Your task to perform on an android device: allow notifications from all sites in the chrome app Image 0: 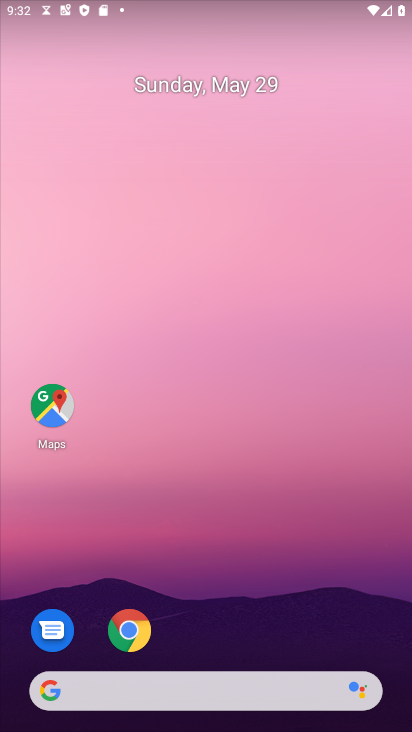
Step 0: click (140, 627)
Your task to perform on an android device: allow notifications from all sites in the chrome app Image 1: 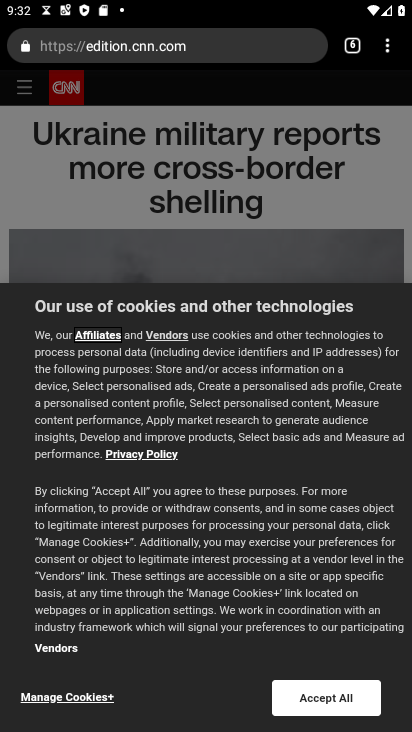
Step 1: click (395, 48)
Your task to perform on an android device: allow notifications from all sites in the chrome app Image 2: 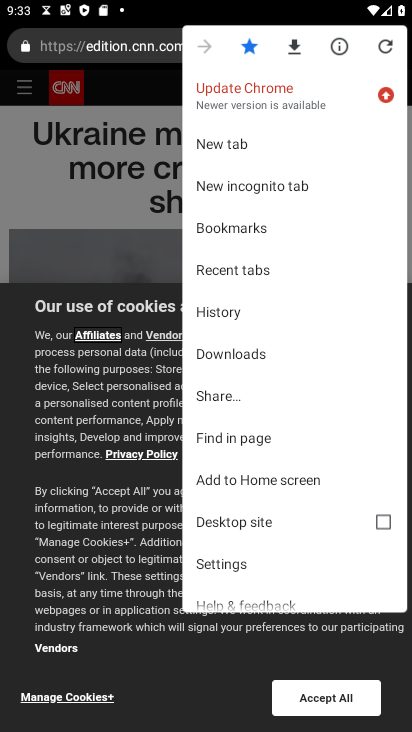
Step 2: click (244, 564)
Your task to perform on an android device: allow notifications from all sites in the chrome app Image 3: 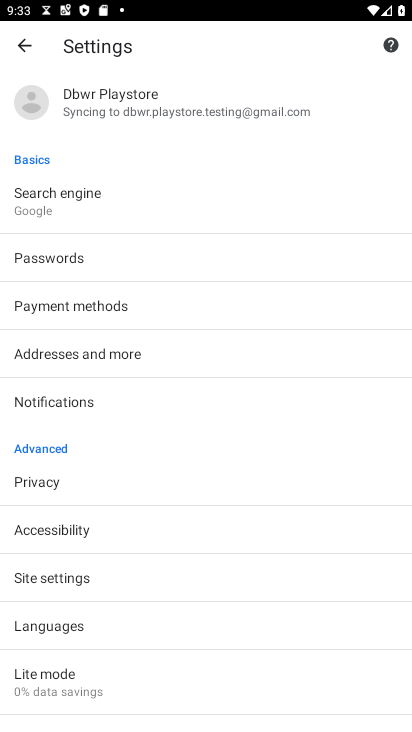
Step 3: click (86, 403)
Your task to perform on an android device: allow notifications from all sites in the chrome app Image 4: 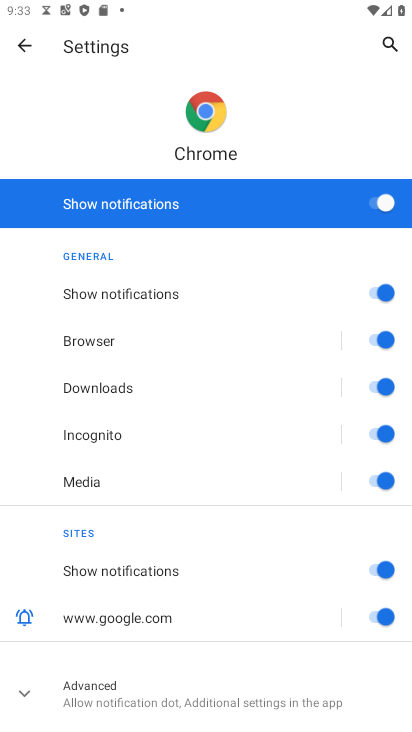
Step 4: task complete